Your task to perform on an android device: Open battery settings Image 0: 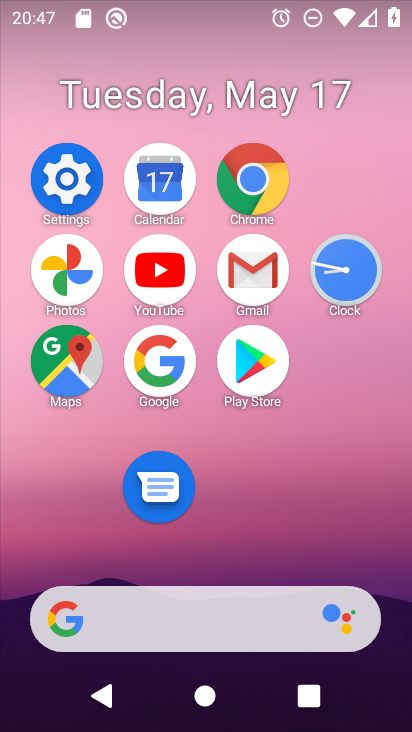
Step 0: click (95, 189)
Your task to perform on an android device: Open battery settings Image 1: 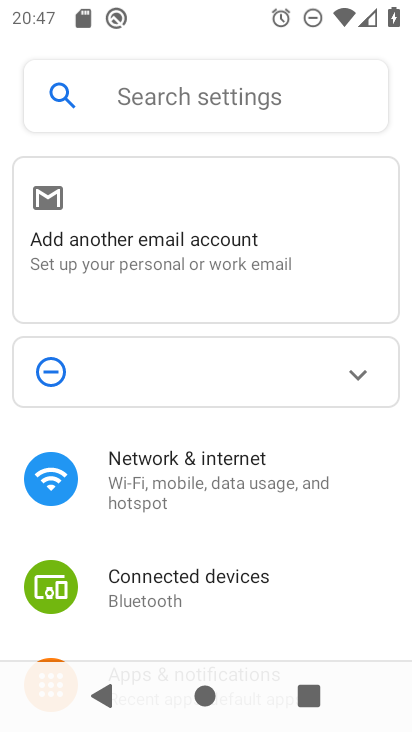
Step 1: drag from (288, 614) to (274, 268)
Your task to perform on an android device: Open battery settings Image 2: 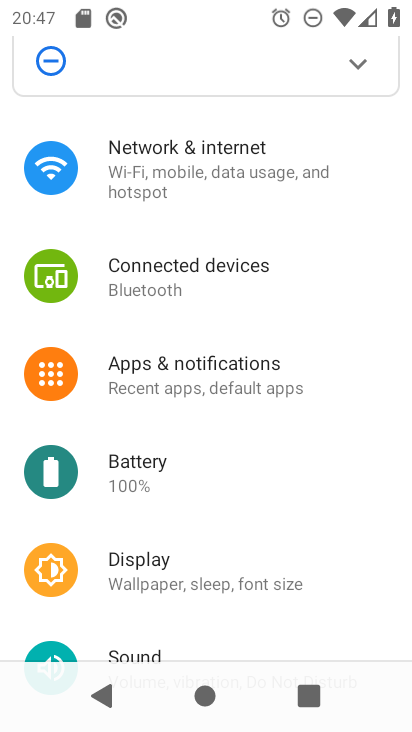
Step 2: click (248, 483)
Your task to perform on an android device: Open battery settings Image 3: 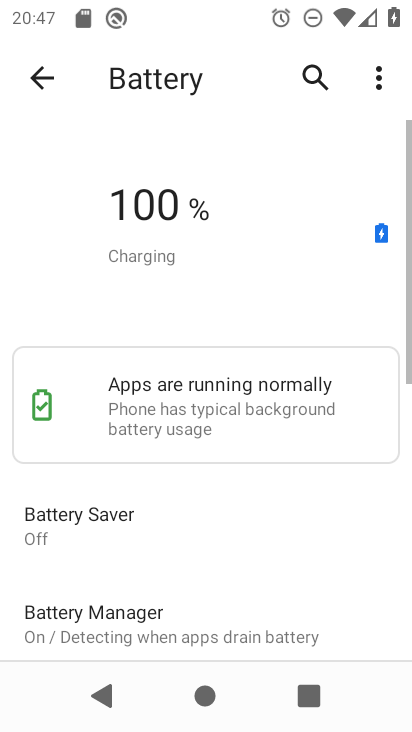
Step 3: task complete